Your task to perform on an android device: star an email in the gmail app Image 0: 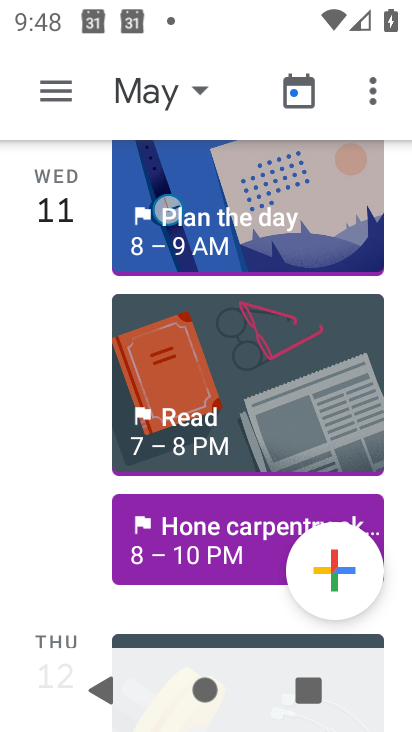
Step 0: press home button
Your task to perform on an android device: star an email in the gmail app Image 1: 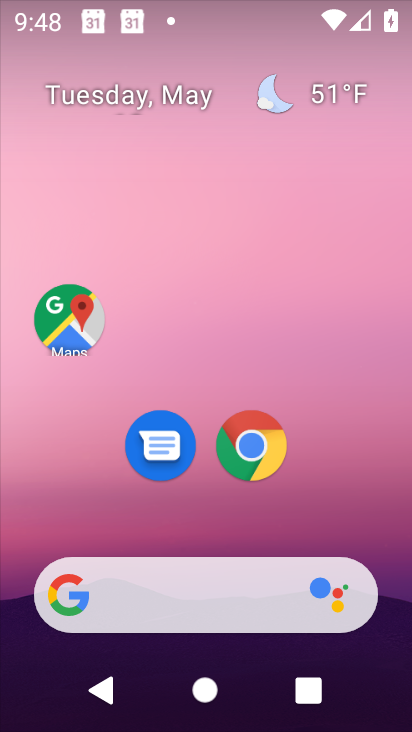
Step 1: drag from (159, 571) to (109, 8)
Your task to perform on an android device: star an email in the gmail app Image 2: 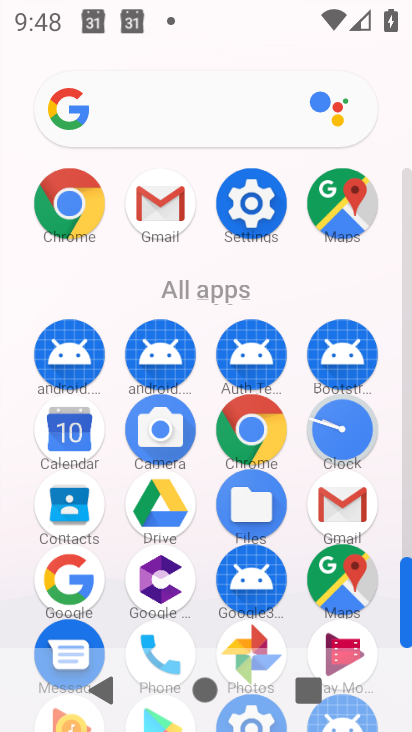
Step 2: click (354, 510)
Your task to perform on an android device: star an email in the gmail app Image 3: 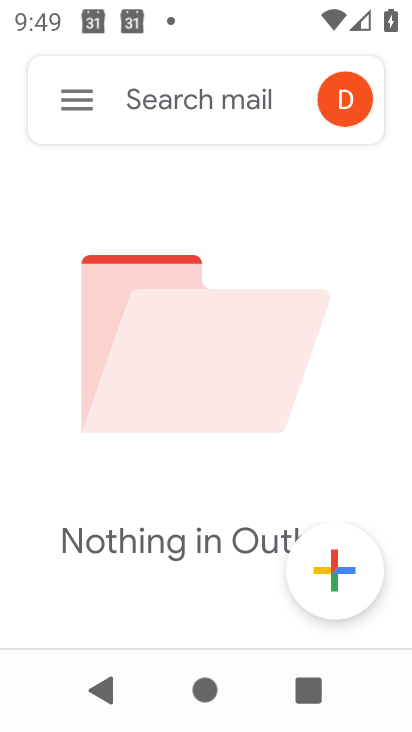
Step 3: click (83, 100)
Your task to perform on an android device: star an email in the gmail app Image 4: 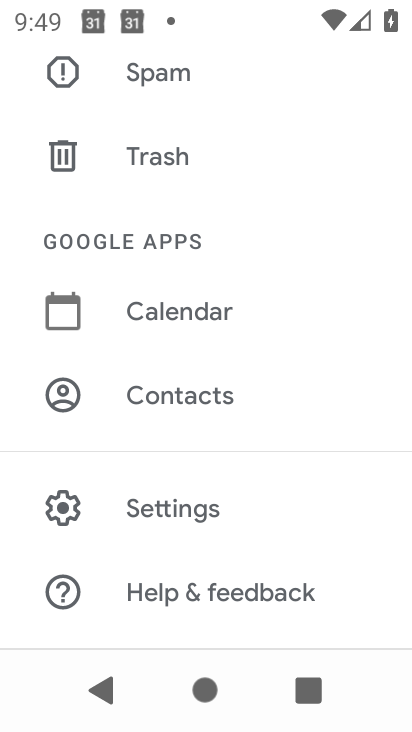
Step 4: drag from (150, 119) to (179, 443)
Your task to perform on an android device: star an email in the gmail app Image 5: 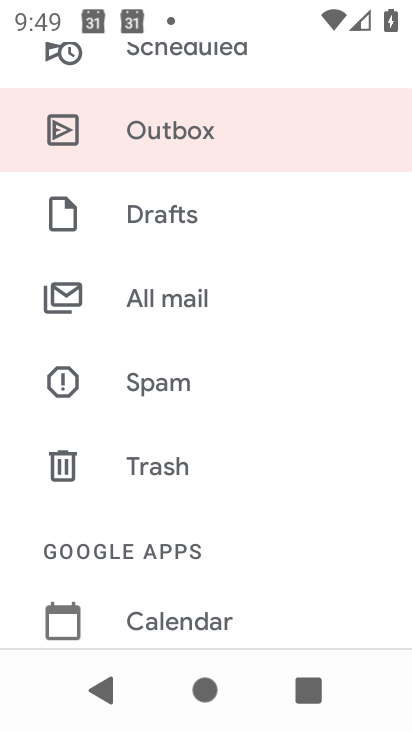
Step 5: click (151, 318)
Your task to perform on an android device: star an email in the gmail app Image 6: 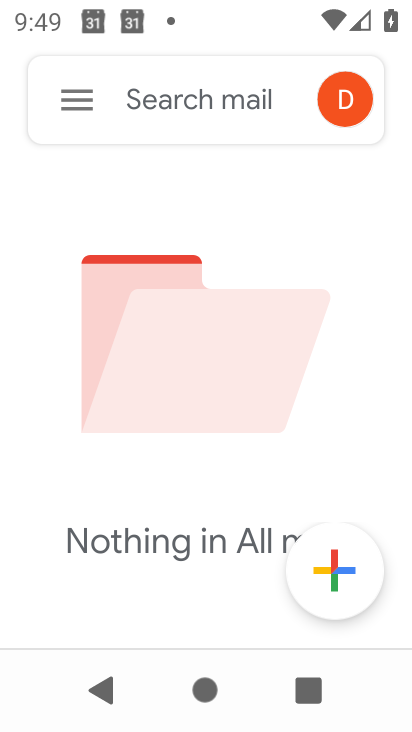
Step 6: task complete